Your task to perform on an android device: Go to Wikipedia Image 0: 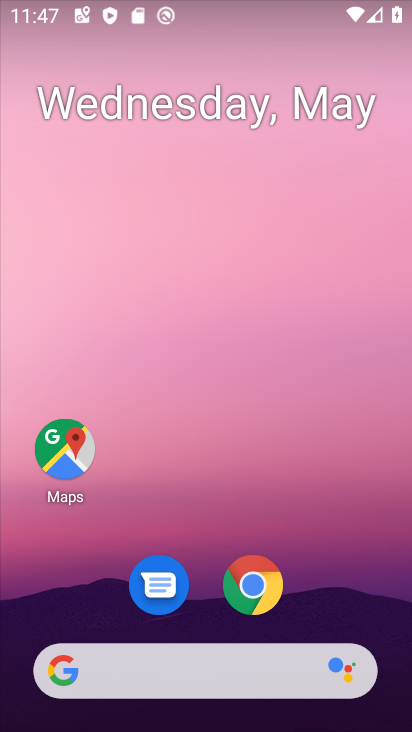
Step 0: click (247, 591)
Your task to perform on an android device: Go to Wikipedia Image 1: 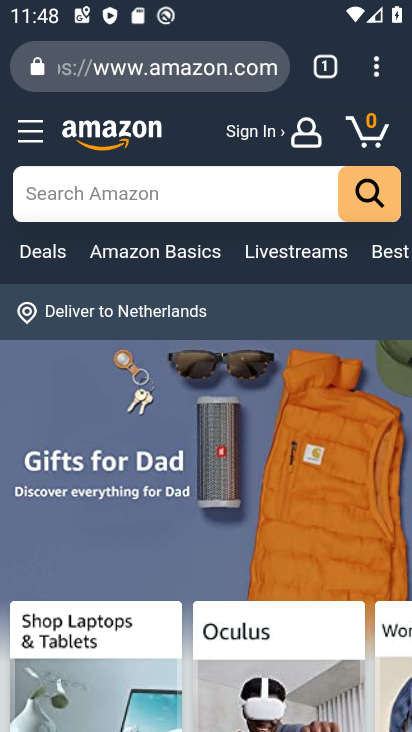
Step 1: click (378, 72)
Your task to perform on an android device: Go to Wikipedia Image 2: 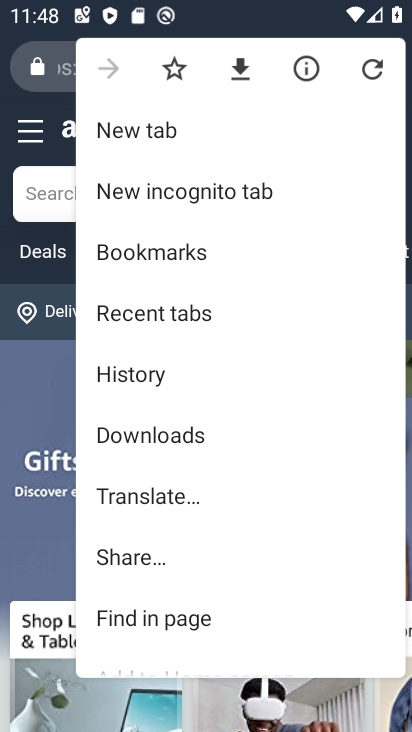
Step 2: click (271, 127)
Your task to perform on an android device: Go to Wikipedia Image 3: 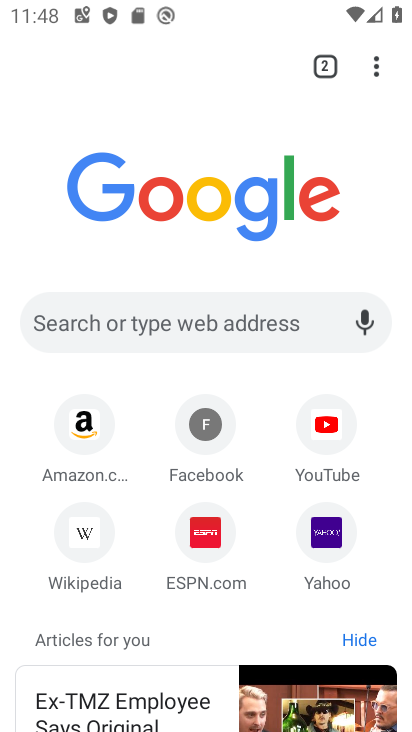
Step 3: click (91, 527)
Your task to perform on an android device: Go to Wikipedia Image 4: 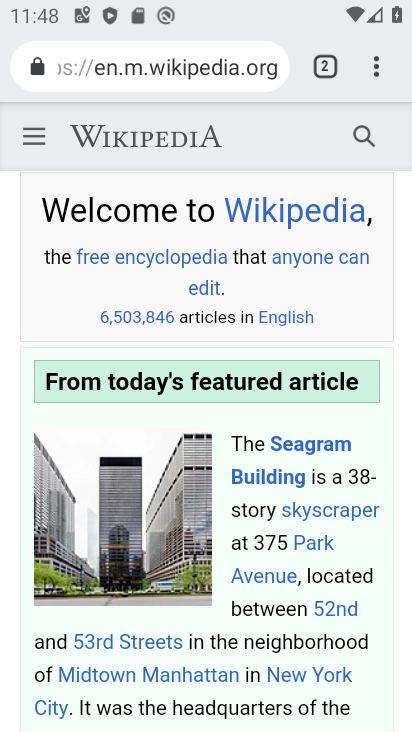
Step 4: task complete